Your task to perform on an android device: Go to battery settings Image 0: 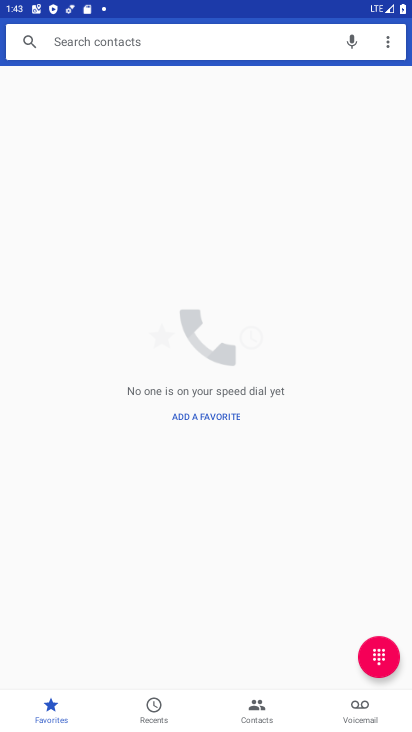
Step 0: press home button
Your task to perform on an android device: Go to battery settings Image 1: 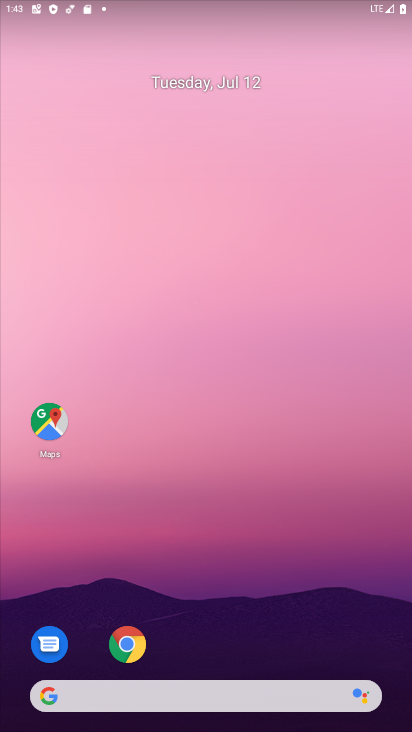
Step 1: drag from (216, 687) to (177, 41)
Your task to perform on an android device: Go to battery settings Image 2: 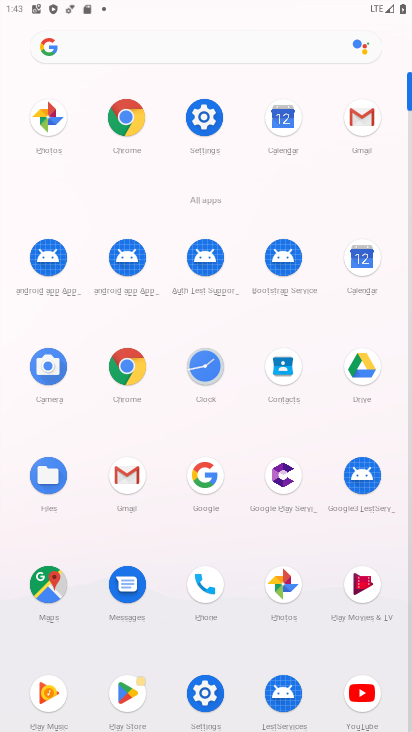
Step 2: click (204, 121)
Your task to perform on an android device: Go to battery settings Image 3: 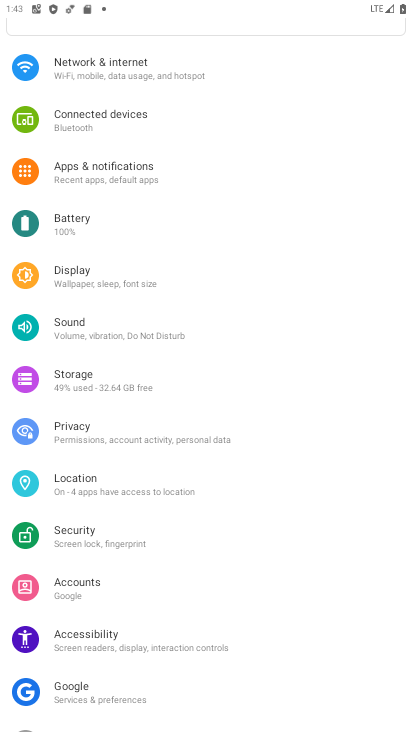
Step 3: click (74, 218)
Your task to perform on an android device: Go to battery settings Image 4: 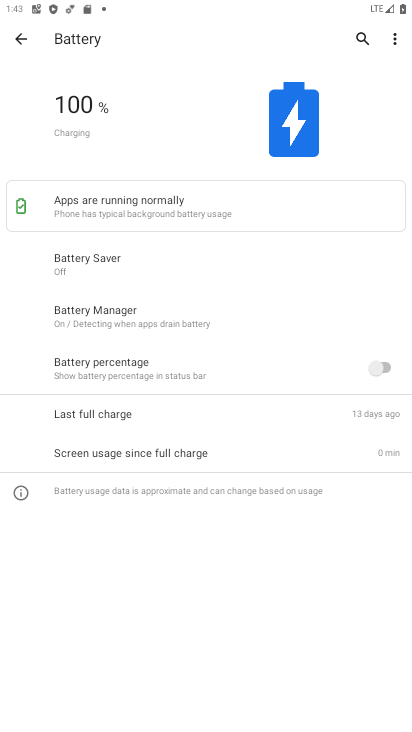
Step 4: task complete